Your task to perform on an android device: open the mobile data screen to see how much data has been used Image 0: 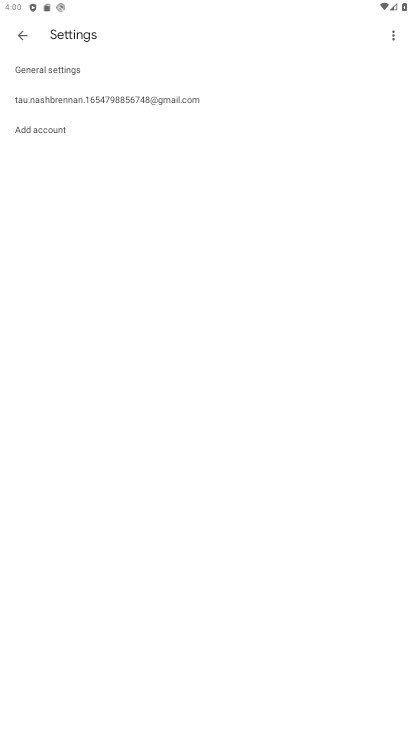
Step 0: press home button
Your task to perform on an android device: open the mobile data screen to see how much data has been used Image 1: 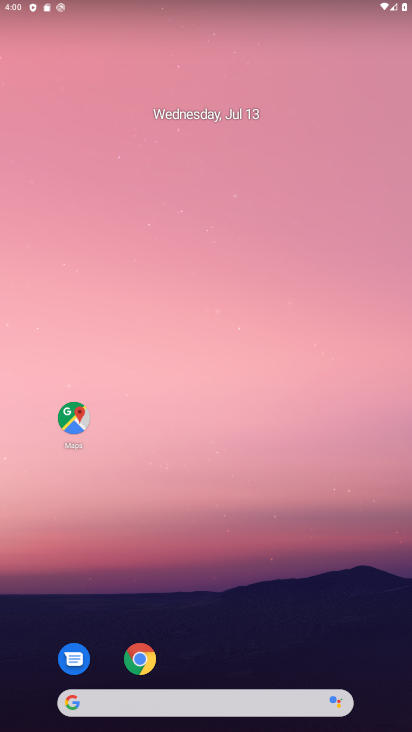
Step 1: drag from (195, 662) to (311, 224)
Your task to perform on an android device: open the mobile data screen to see how much data has been used Image 2: 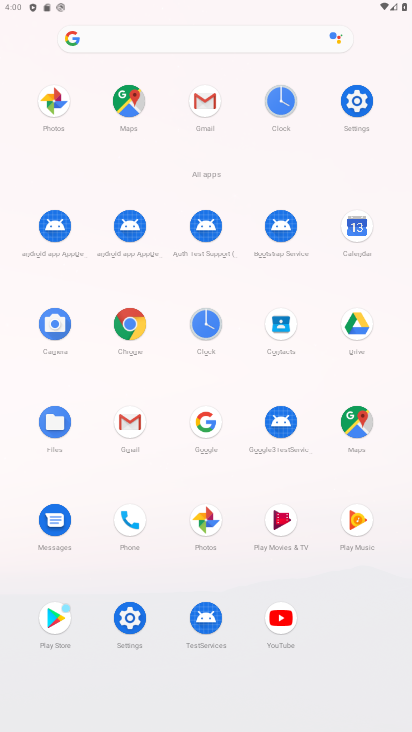
Step 2: click (117, 605)
Your task to perform on an android device: open the mobile data screen to see how much data has been used Image 3: 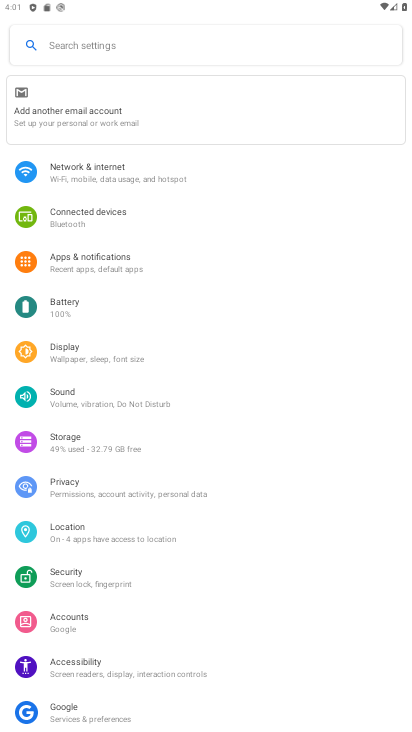
Step 3: click (153, 185)
Your task to perform on an android device: open the mobile data screen to see how much data has been used Image 4: 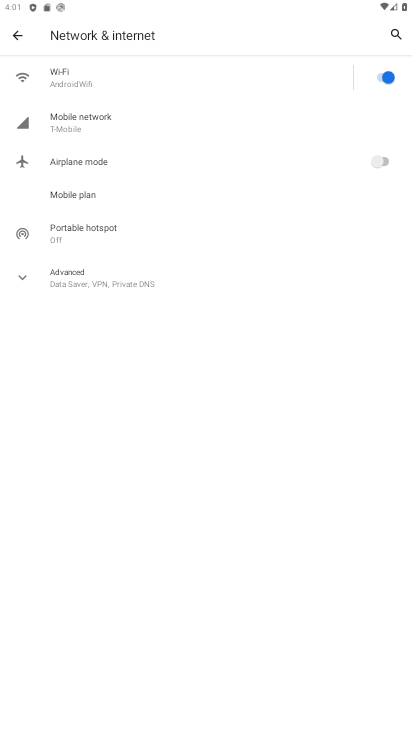
Step 4: click (145, 133)
Your task to perform on an android device: open the mobile data screen to see how much data has been used Image 5: 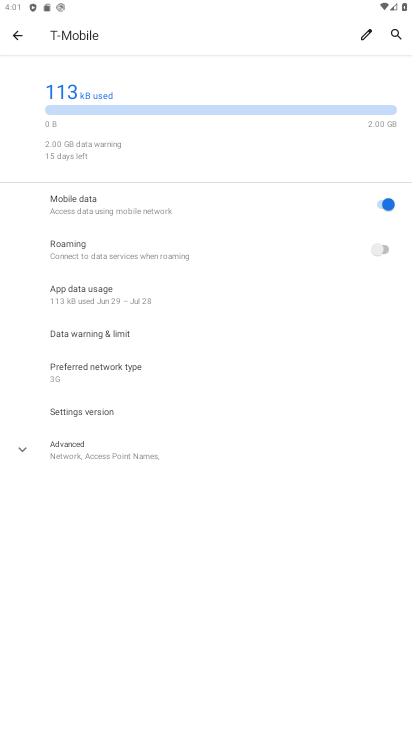
Step 5: task complete